Your task to perform on an android device: Open Google Image 0: 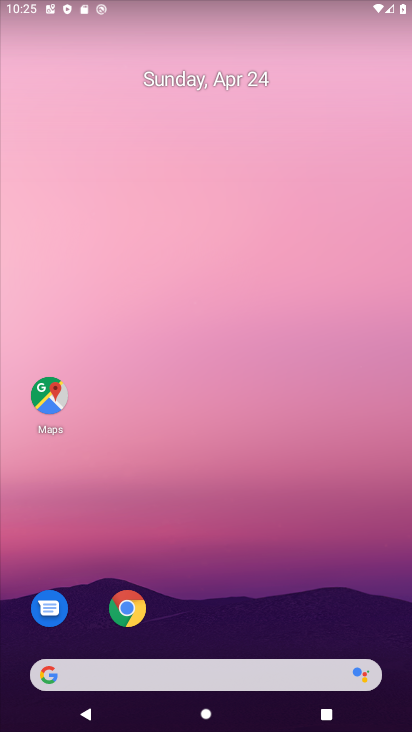
Step 0: drag from (264, 584) to (219, 3)
Your task to perform on an android device: Open Google Image 1: 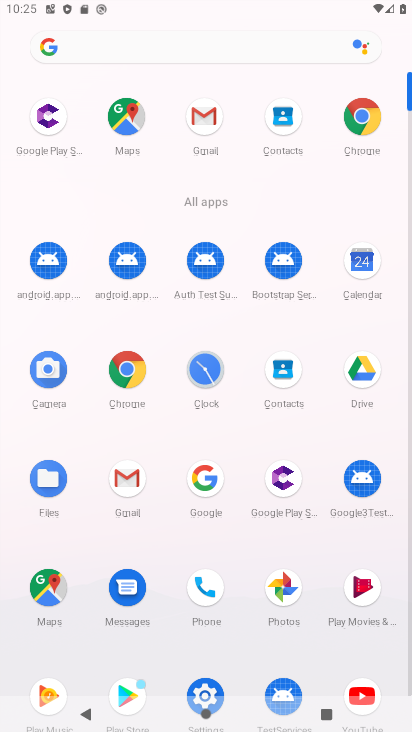
Step 1: click (208, 482)
Your task to perform on an android device: Open Google Image 2: 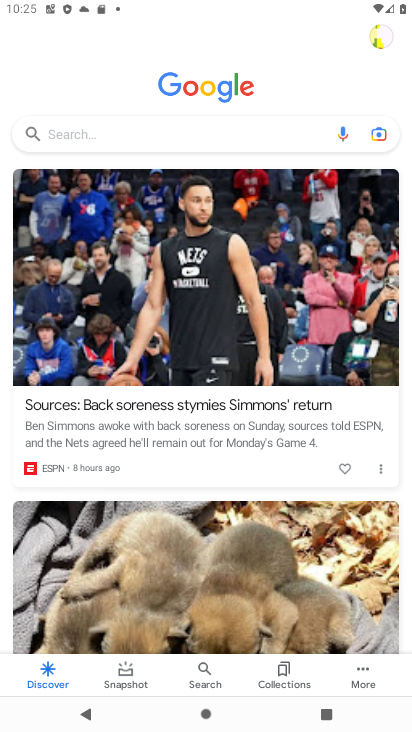
Step 2: task complete